Your task to perform on an android device: toggle data saver in the chrome app Image 0: 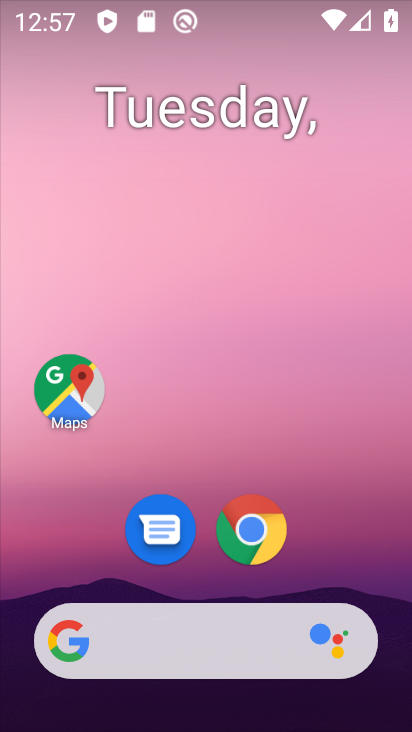
Step 0: drag from (396, 581) to (295, 51)
Your task to perform on an android device: toggle data saver in the chrome app Image 1: 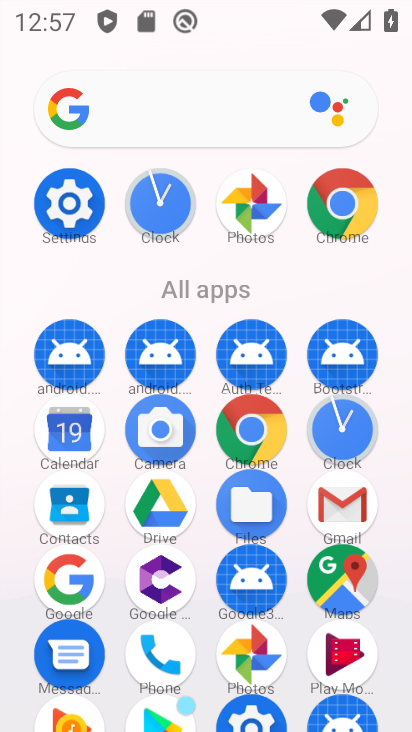
Step 1: click (341, 205)
Your task to perform on an android device: toggle data saver in the chrome app Image 2: 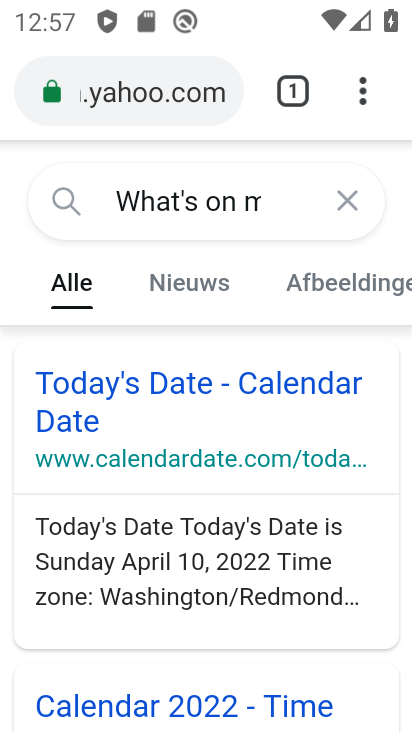
Step 2: click (354, 83)
Your task to perform on an android device: toggle data saver in the chrome app Image 3: 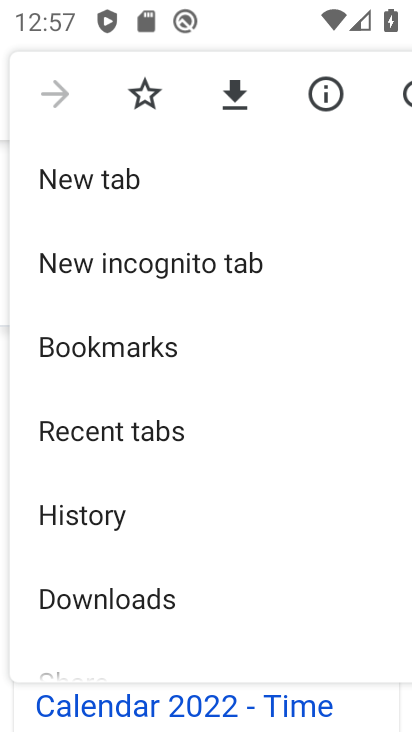
Step 3: drag from (313, 628) to (252, 257)
Your task to perform on an android device: toggle data saver in the chrome app Image 4: 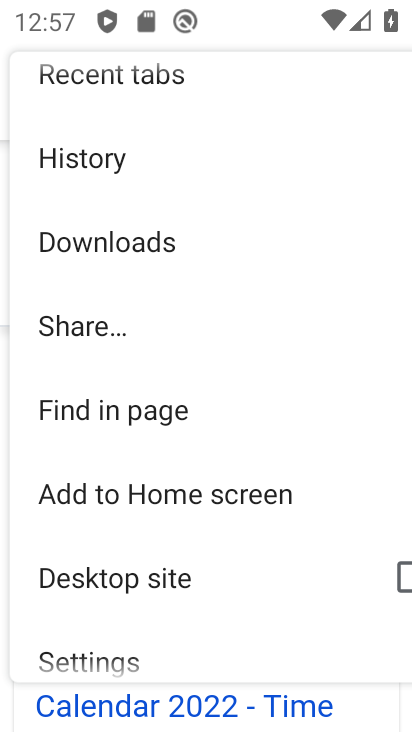
Step 4: drag from (246, 601) to (209, 311)
Your task to perform on an android device: toggle data saver in the chrome app Image 5: 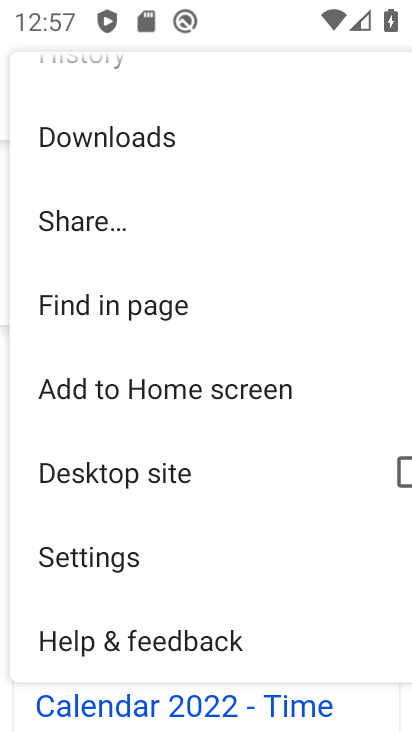
Step 5: click (206, 555)
Your task to perform on an android device: toggle data saver in the chrome app Image 6: 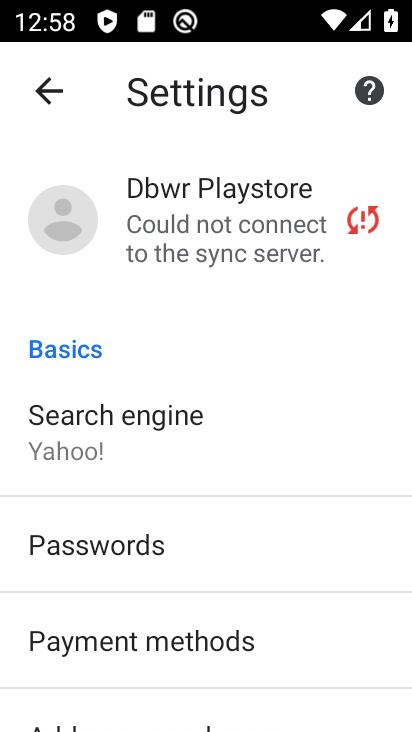
Step 6: drag from (300, 650) to (238, 225)
Your task to perform on an android device: toggle data saver in the chrome app Image 7: 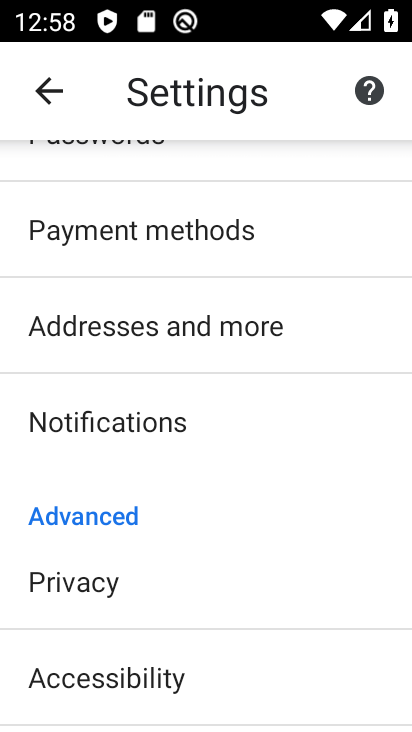
Step 7: drag from (276, 605) to (225, 205)
Your task to perform on an android device: toggle data saver in the chrome app Image 8: 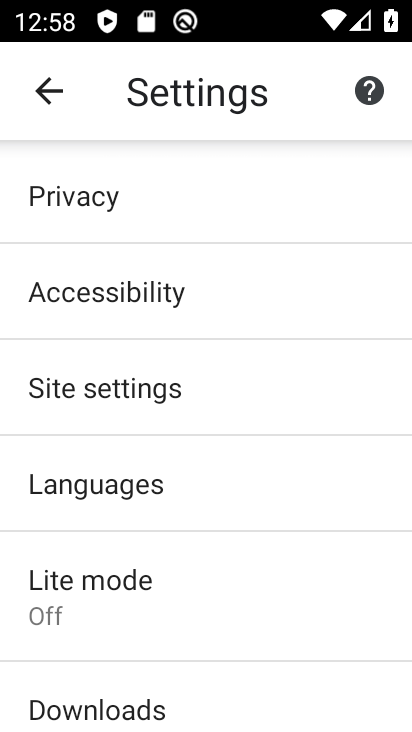
Step 8: click (263, 572)
Your task to perform on an android device: toggle data saver in the chrome app Image 9: 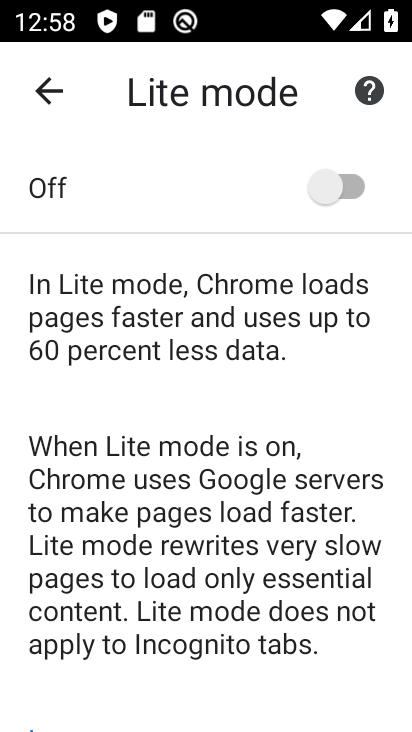
Step 9: click (355, 187)
Your task to perform on an android device: toggle data saver in the chrome app Image 10: 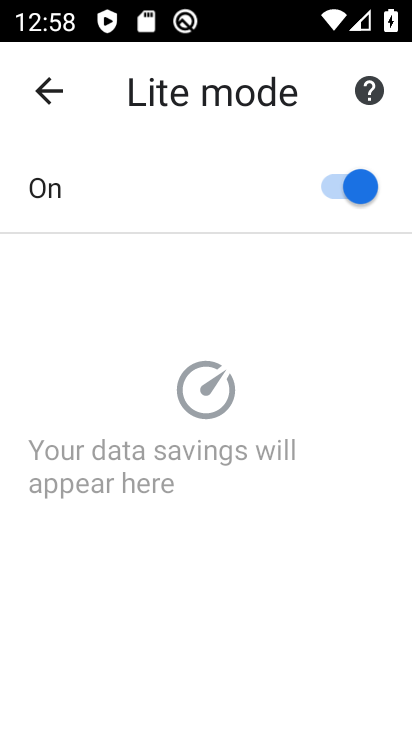
Step 10: task complete